Your task to perform on an android device: turn off sleep mode Image 0: 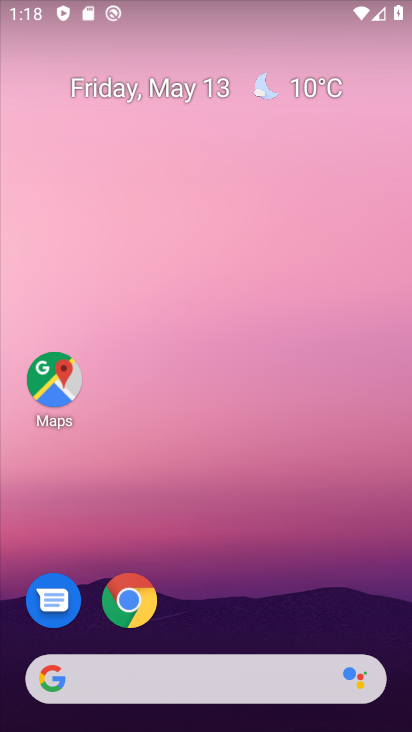
Step 0: drag from (196, 631) to (302, 185)
Your task to perform on an android device: turn off sleep mode Image 1: 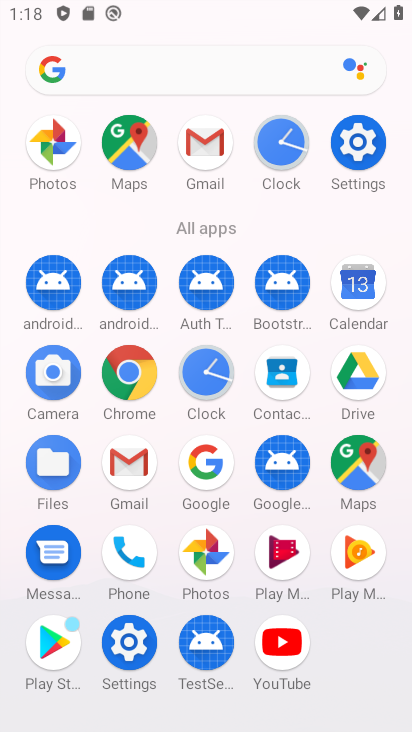
Step 1: click (147, 637)
Your task to perform on an android device: turn off sleep mode Image 2: 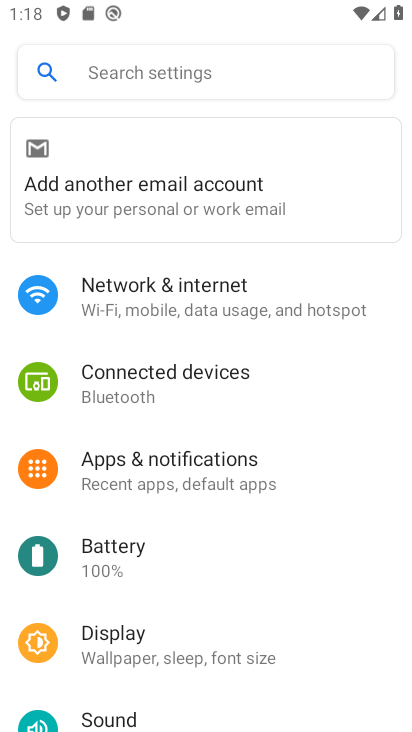
Step 2: click (180, 654)
Your task to perform on an android device: turn off sleep mode Image 3: 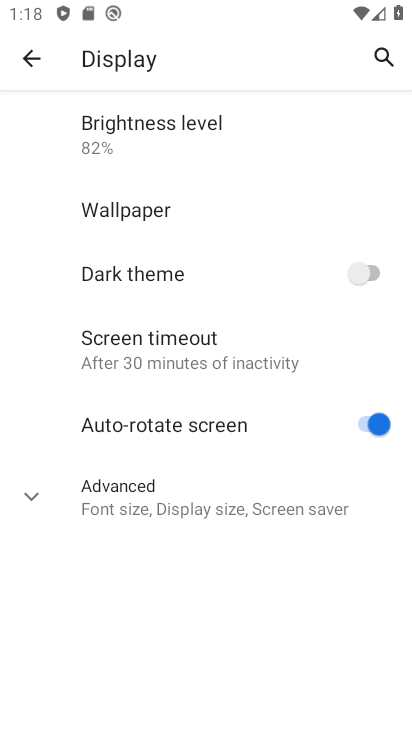
Step 3: click (198, 505)
Your task to perform on an android device: turn off sleep mode Image 4: 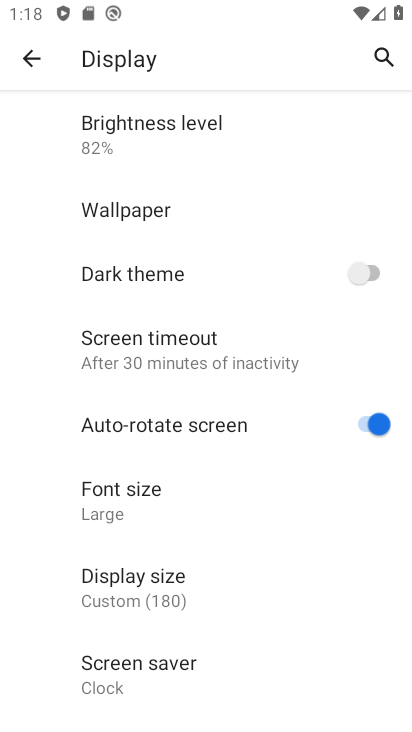
Step 4: task complete